Your task to perform on an android device: toggle improve location accuracy Image 0: 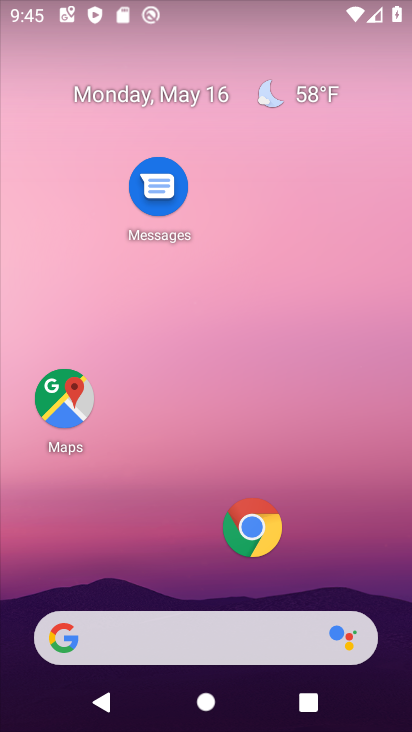
Step 0: drag from (193, 567) to (166, 146)
Your task to perform on an android device: toggle improve location accuracy Image 1: 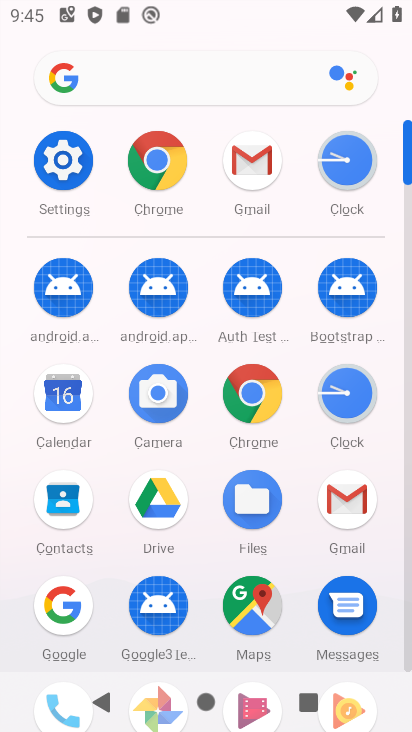
Step 1: click (50, 175)
Your task to perform on an android device: toggle improve location accuracy Image 2: 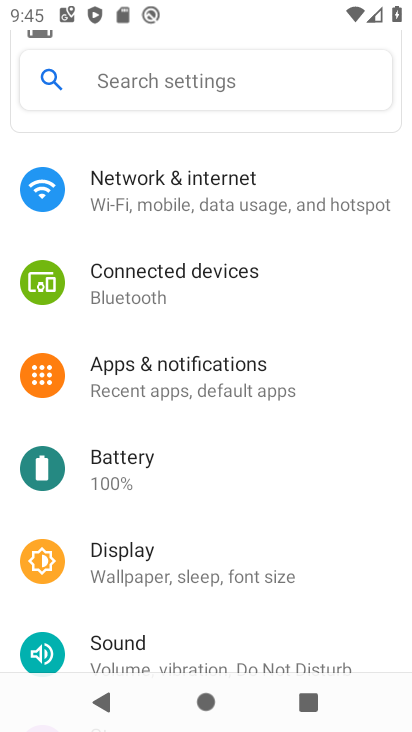
Step 2: drag from (242, 552) to (222, 62)
Your task to perform on an android device: toggle improve location accuracy Image 3: 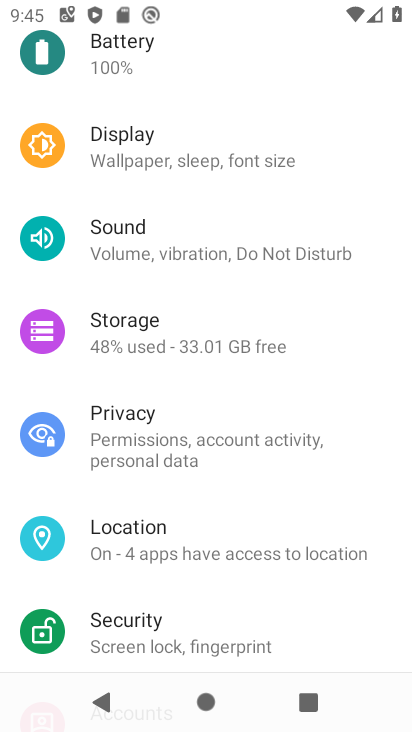
Step 3: click (175, 561)
Your task to perform on an android device: toggle improve location accuracy Image 4: 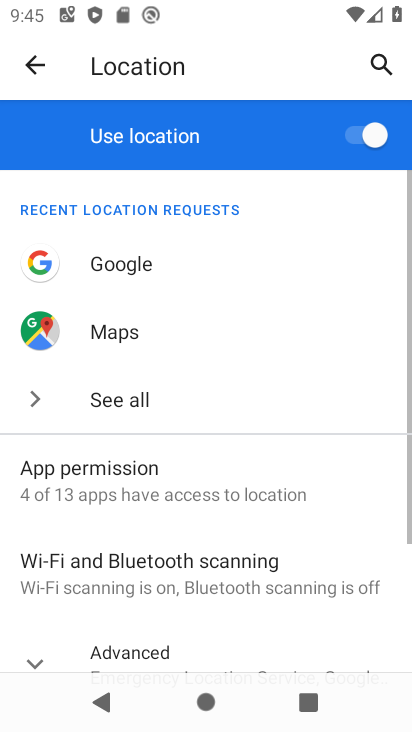
Step 4: drag from (230, 534) to (202, 121)
Your task to perform on an android device: toggle improve location accuracy Image 5: 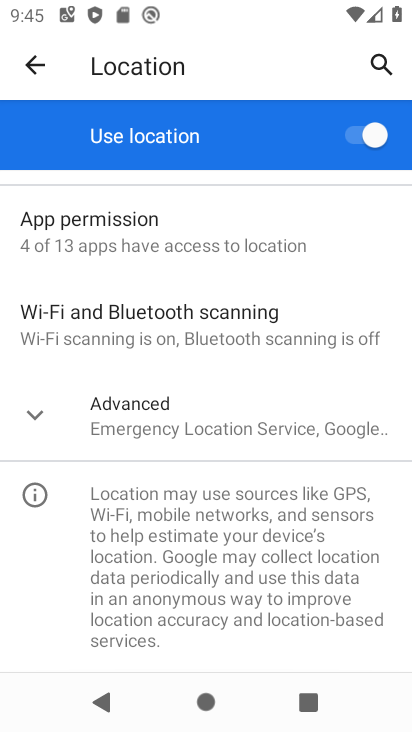
Step 5: click (123, 413)
Your task to perform on an android device: toggle improve location accuracy Image 6: 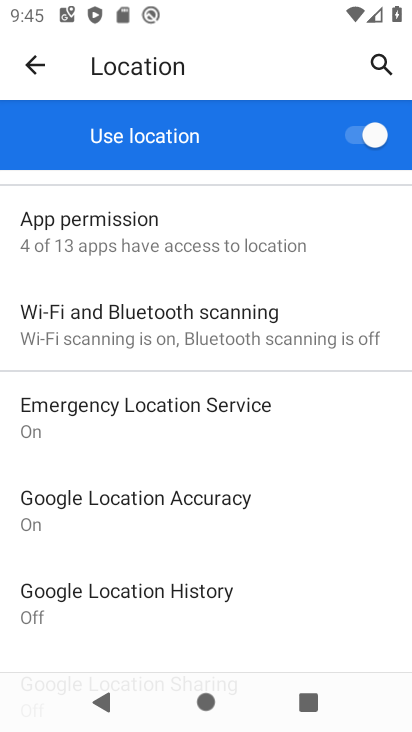
Step 6: click (165, 491)
Your task to perform on an android device: toggle improve location accuracy Image 7: 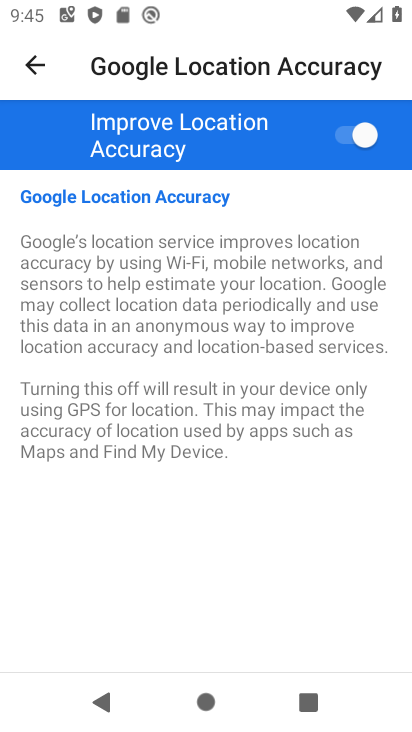
Step 7: click (355, 128)
Your task to perform on an android device: toggle improve location accuracy Image 8: 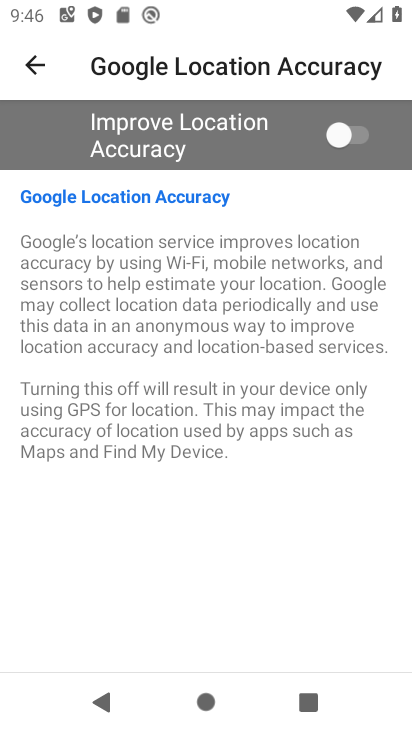
Step 8: task complete